Your task to perform on an android device: Search for razer huntsman on target.com, select the first entry, and add it to the cart. Image 0: 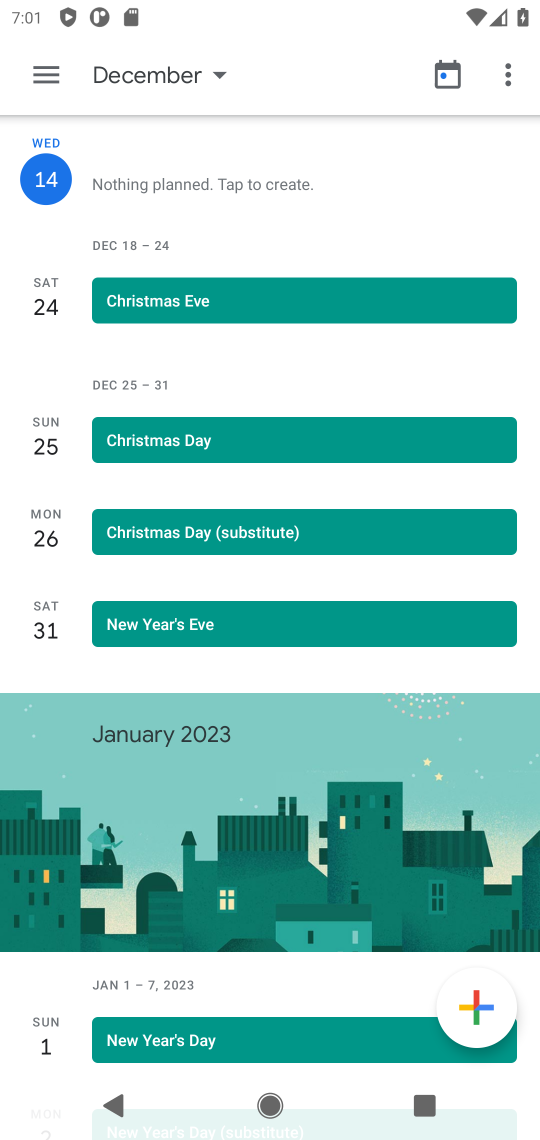
Step 0: press home button
Your task to perform on an android device: Search for razer huntsman on target.com, select the first entry, and add it to the cart. Image 1: 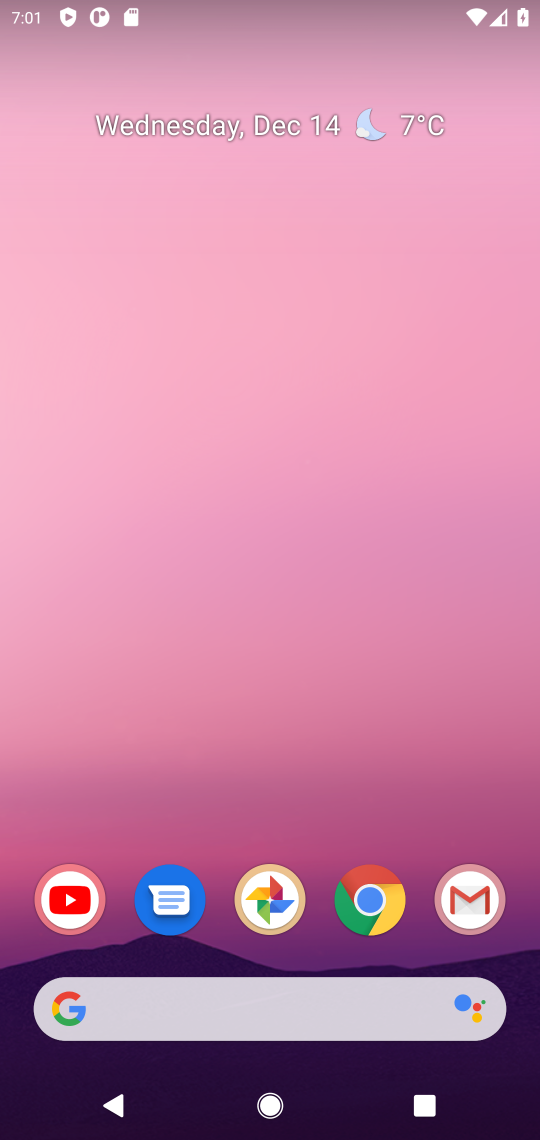
Step 1: click (336, 1004)
Your task to perform on an android device: Search for razer huntsman on target.com, select the first entry, and add it to the cart. Image 2: 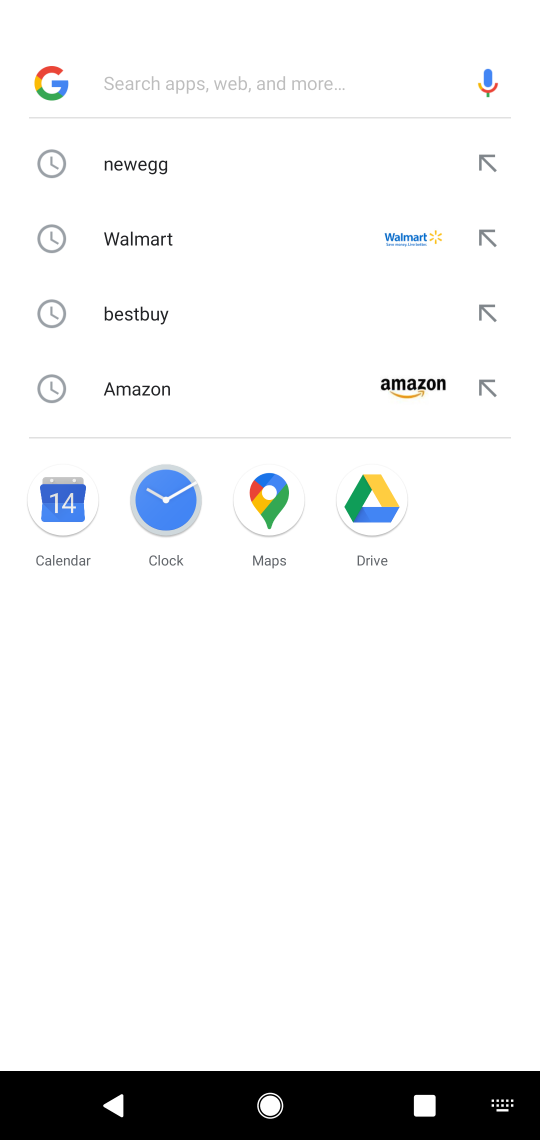
Step 2: type "target.com"
Your task to perform on an android device: Search for razer huntsman on target.com, select the first entry, and add it to the cart. Image 3: 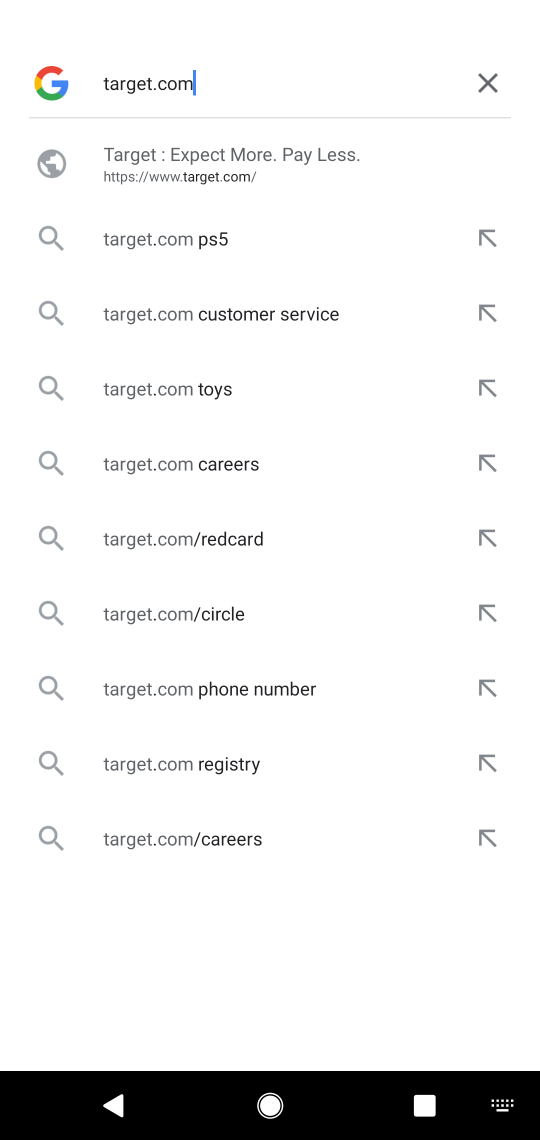
Step 3: click (238, 175)
Your task to perform on an android device: Search for razer huntsman on target.com, select the first entry, and add it to the cart. Image 4: 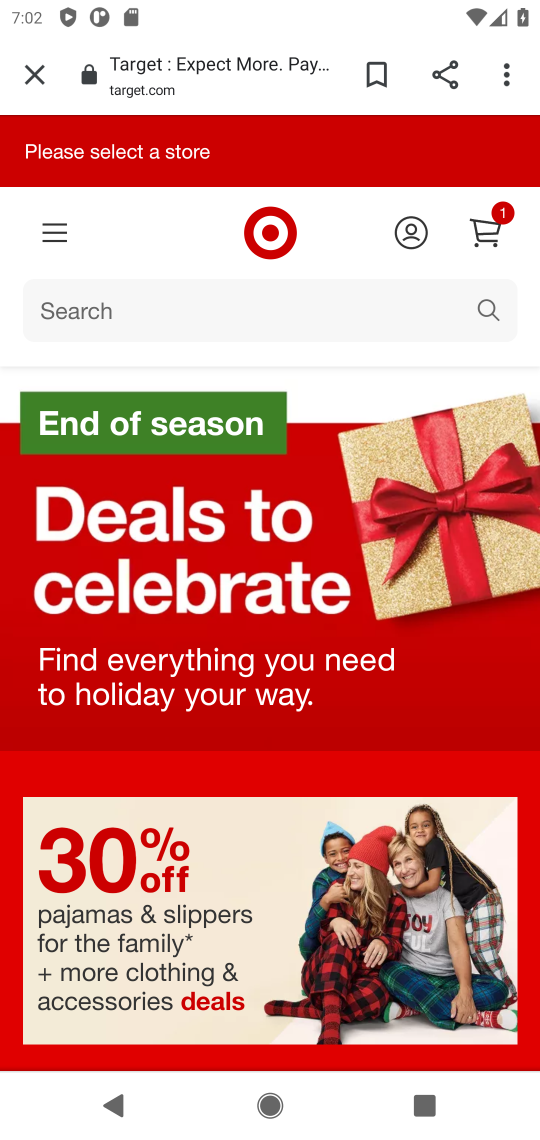
Step 4: click (93, 304)
Your task to perform on an android device: Search for razer huntsman on target.com, select the first entry, and add it to the cart. Image 5: 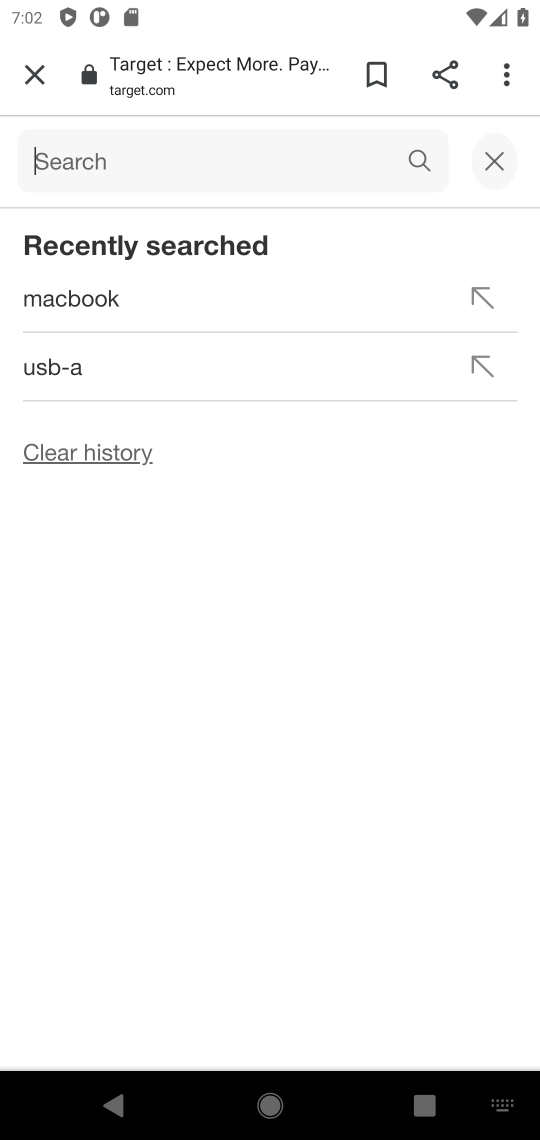
Step 5: type "razer huntsman "
Your task to perform on an android device: Search for razer huntsman on target.com, select the first entry, and add it to the cart. Image 6: 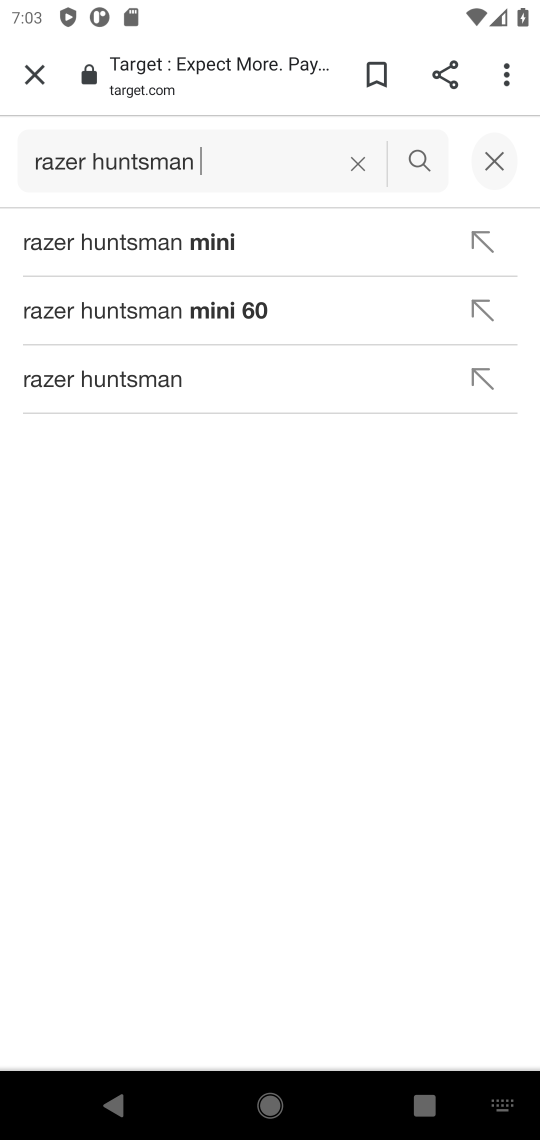
Step 6: click (416, 150)
Your task to perform on an android device: Search for razer huntsman on target.com, select the first entry, and add it to the cart. Image 7: 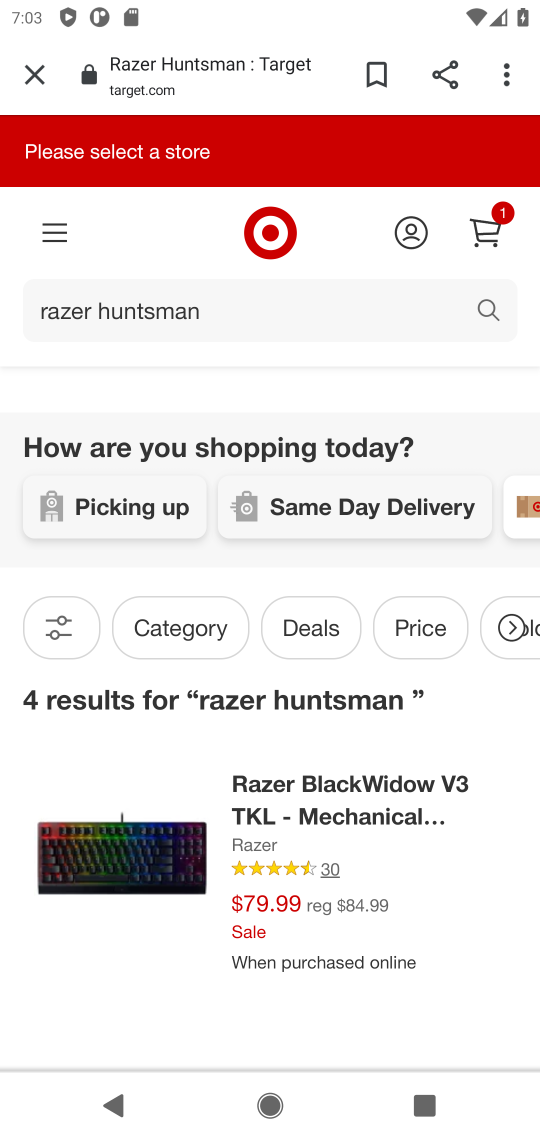
Step 7: click (358, 814)
Your task to perform on an android device: Search for razer huntsman on target.com, select the first entry, and add it to the cart. Image 8: 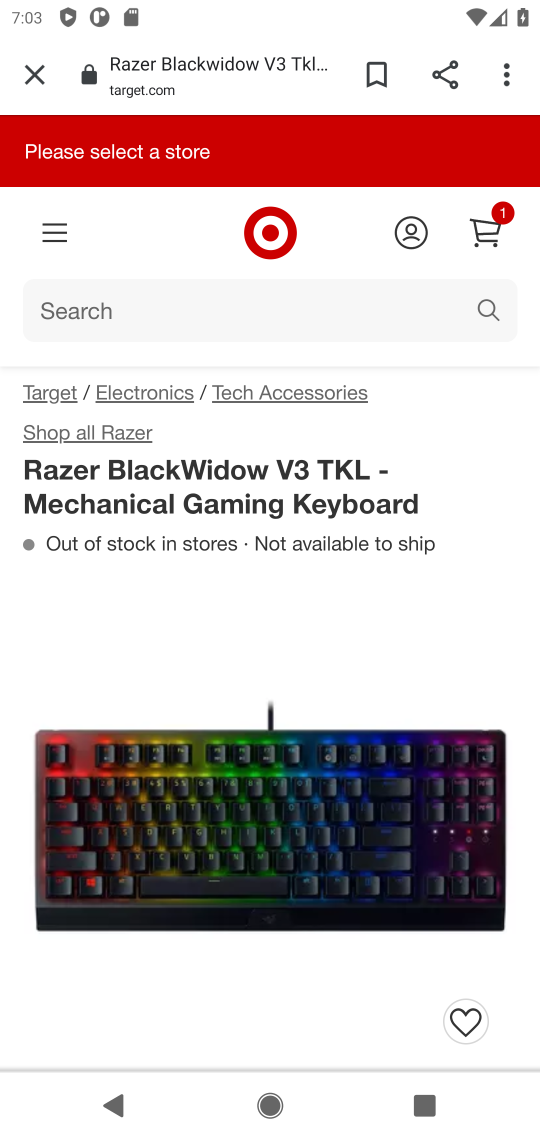
Step 8: drag from (247, 692) to (305, 405)
Your task to perform on an android device: Search for razer huntsman on target.com, select the first entry, and add it to the cart. Image 9: 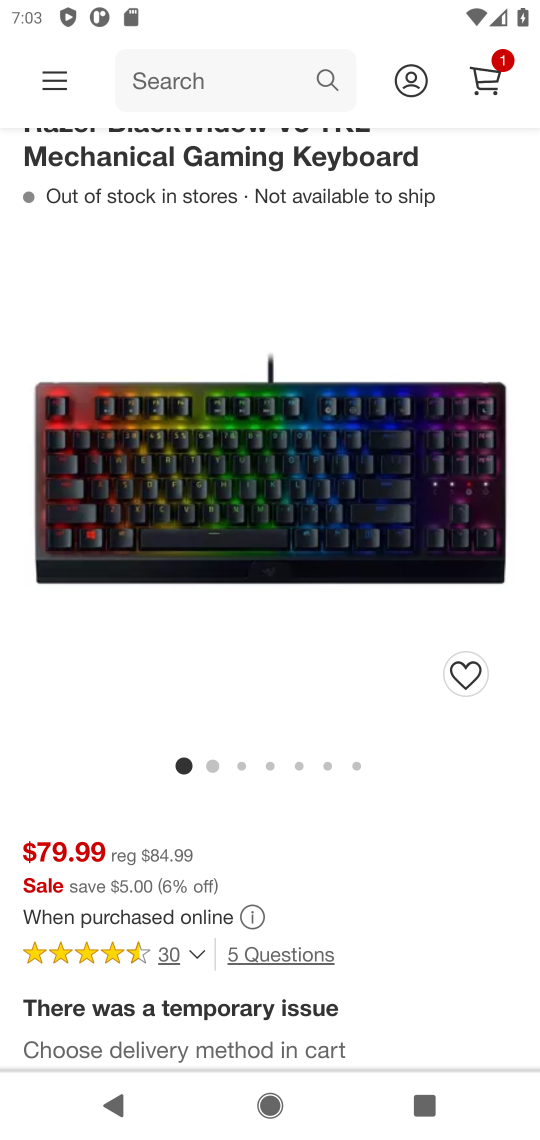
Step 9: drag from (285, 797) to (285, 554)
Your task to perform on an android device: Search for razer huntsman on target.com, select the first entry, and add it to the cart. Image 10: 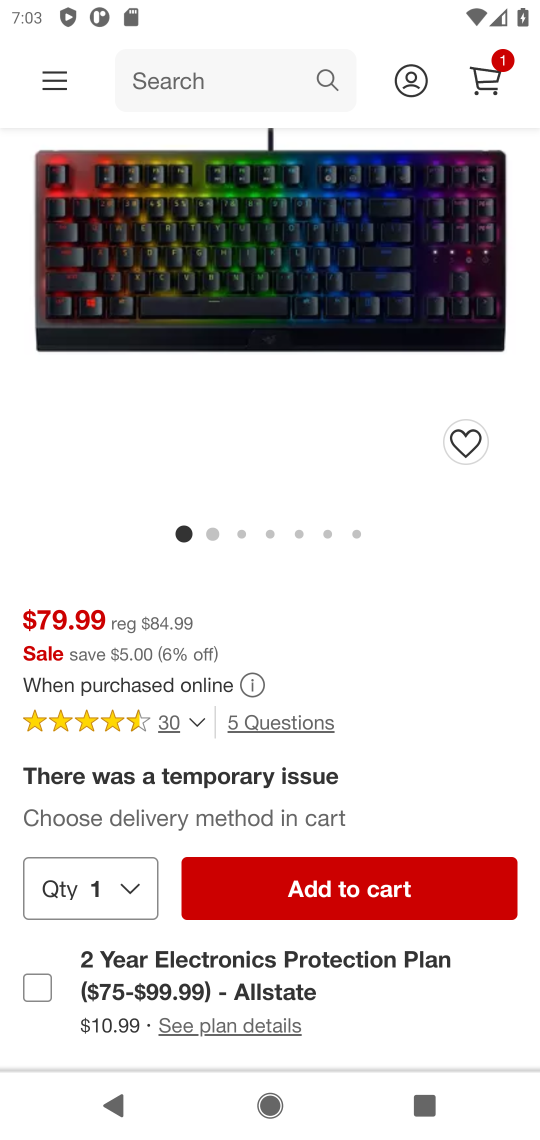
Step 10: click (328, 889)
Your task to perform on an android device: Search for razer huntsman on target.com, select the first entry, and add it to the cart. Image 11: 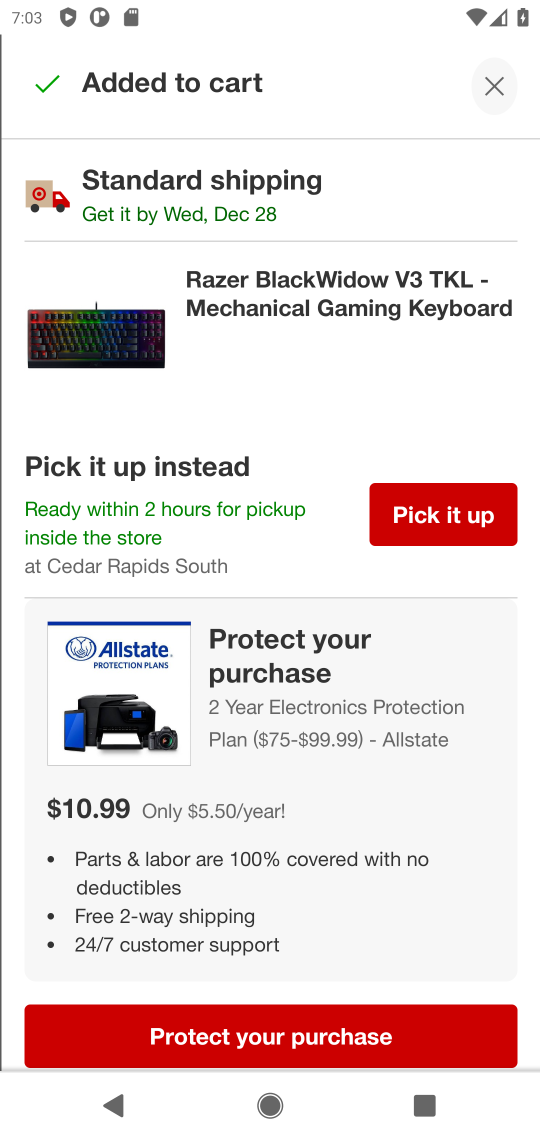
Step 11: task complete